Your task to perform on an android device: check the backup settings in the google photos Image 0: 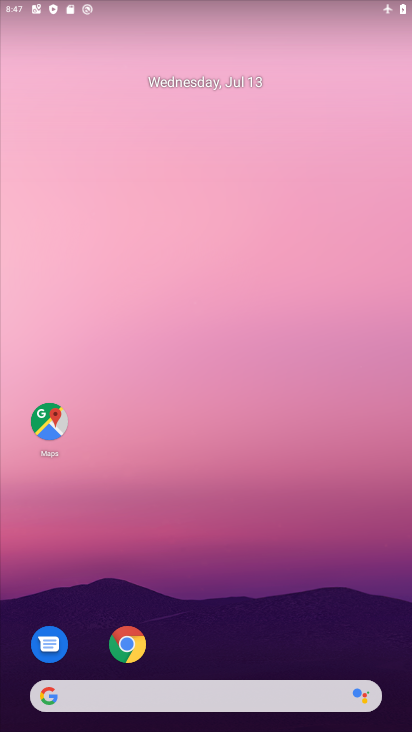
Step 0: drag from (239, 717) to (204, 73)
Your task to perform on an android device: check the backup settings in the google photos Image 1: 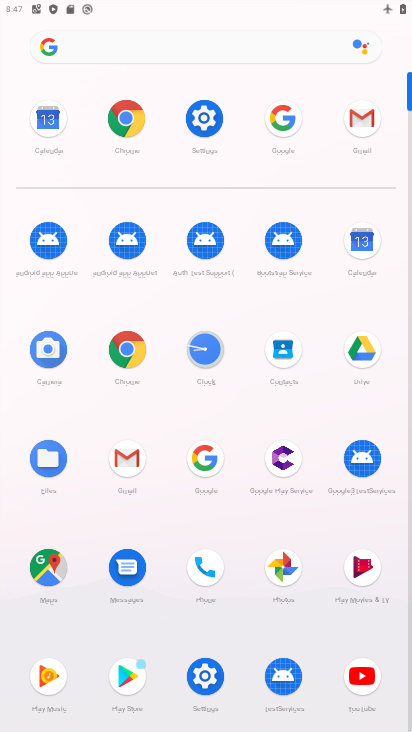
Step 1: click (279, 565)
Your task to perform on an android device: check the backup settings in the google photos Image 2: 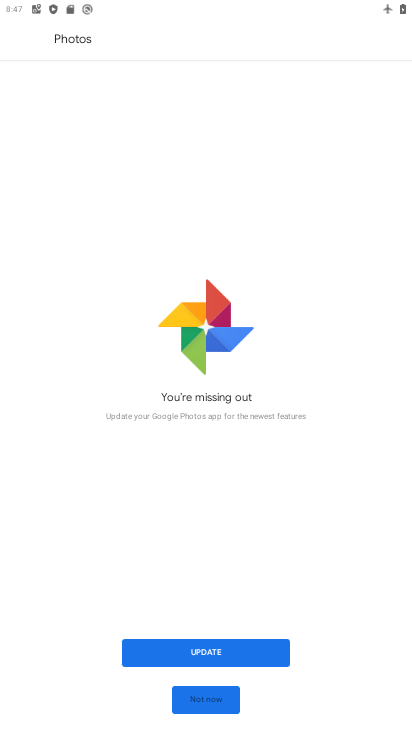
Step 2: task complete